Your task to perform on an android device: Show me productivity apps on the Play Store Image 0: 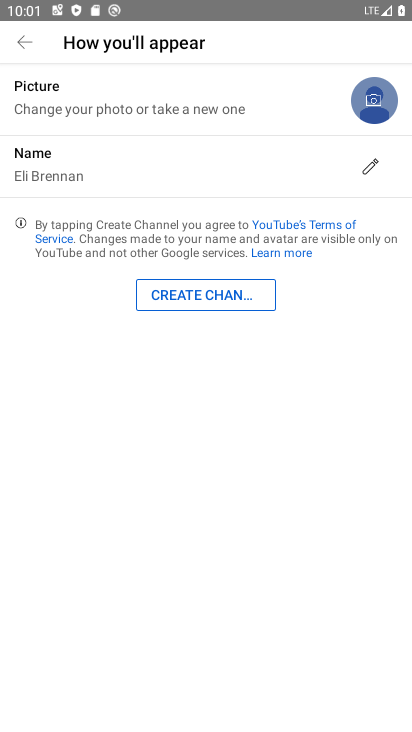
Step 0: press home button
Your task to perform on an android device: Show me productivity apps on the Play Store Image 1: 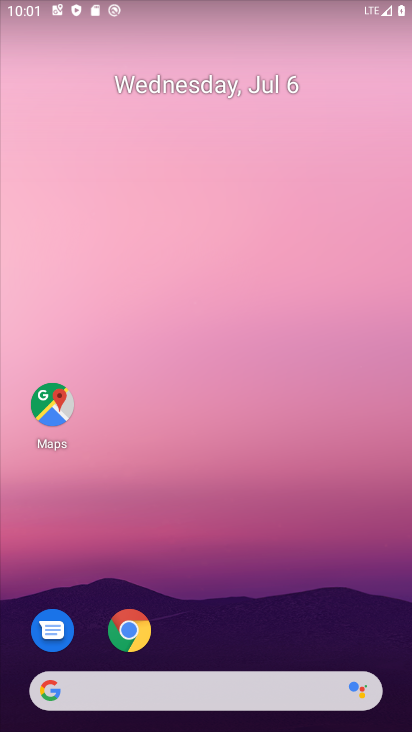
Step 1: drag from (372, 625) to (307, 146)
Your task to perform on an android device: Show me productivity apps on the Play Store Image 2: 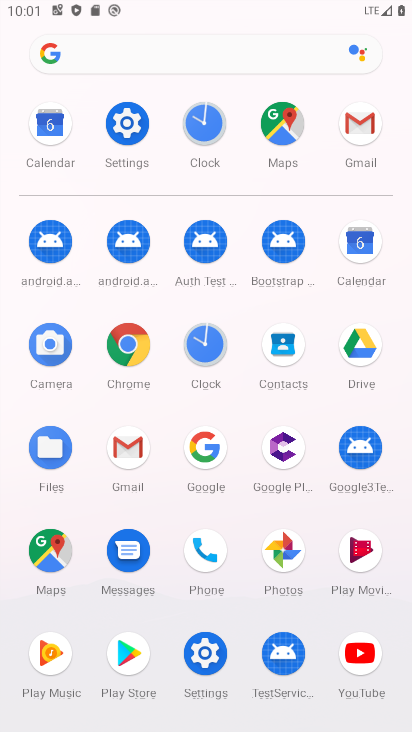
Step 2: click (128, 651)
Your task to perform on an android device: Show me productivity apps on the Play Store Image 3: 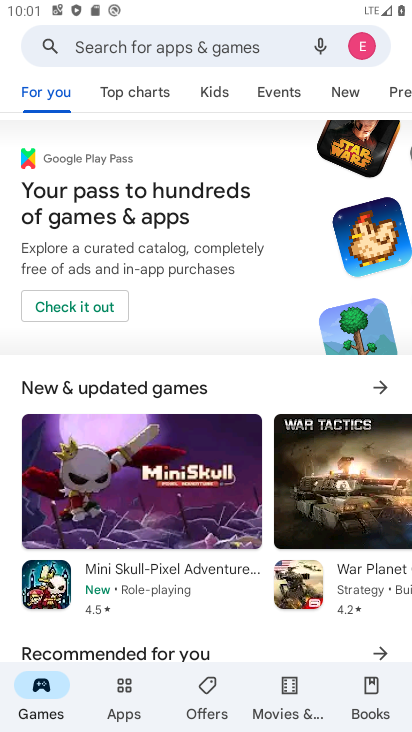
Step 3: click (125, 701)
Your task to perform on an android device: Show me productivity apps on the Play Store Image 4: 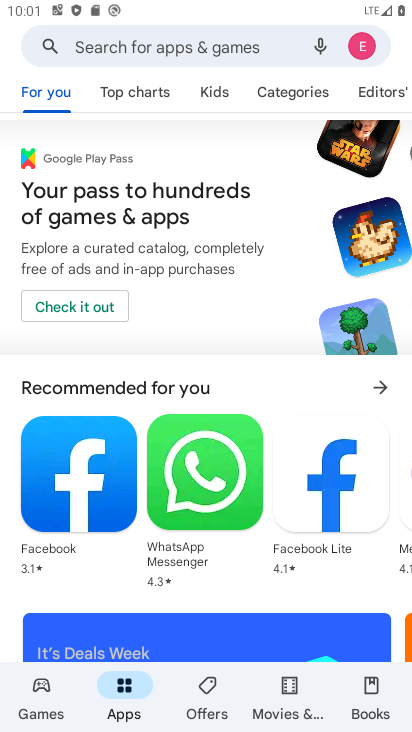
Step 4: click (296, 88)
Your task to perform on an android device: Show me productivity apps on the Play Store Image 5: 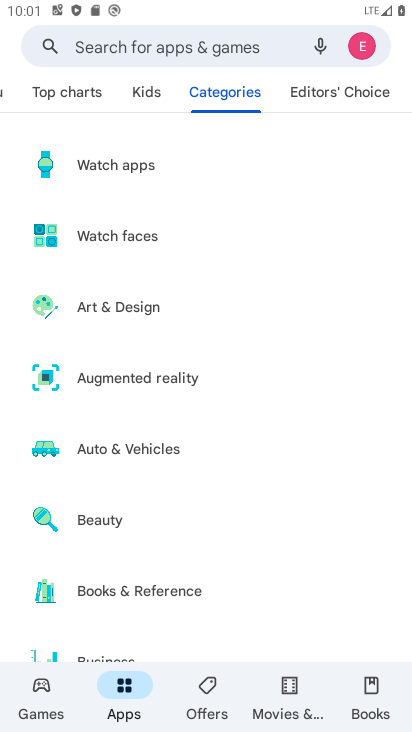
Step 5: drag from (224, 590) to (266, 167)
Your task to perform on an android device: Show me productivity apps on the Play Store Image 6: 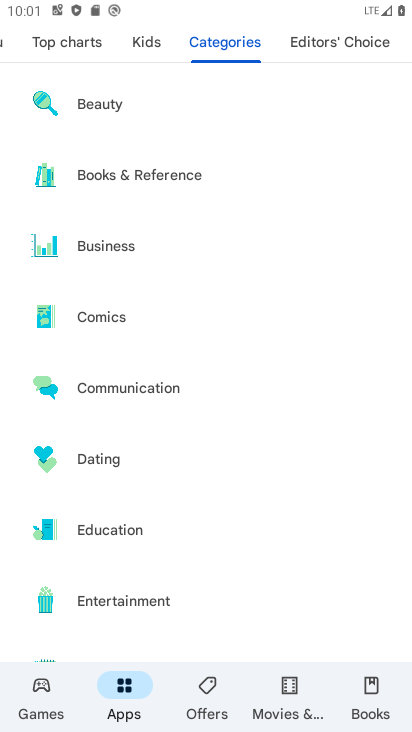
Step 6: drag from (243, 546) to (269, 274)
Your task to perform on an android device: Show me productivity apps on the Play Store Image 7: 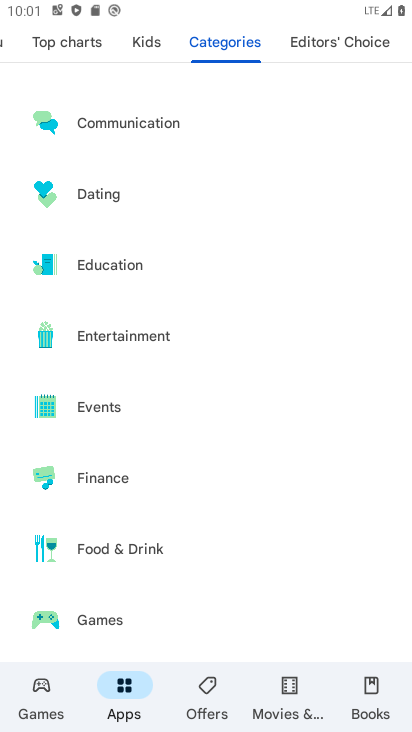
Step 7: drag from (247, 630) to (163, 310)
Your task to perform on an android device: Show me productivity apps on the Play Store Image 8: 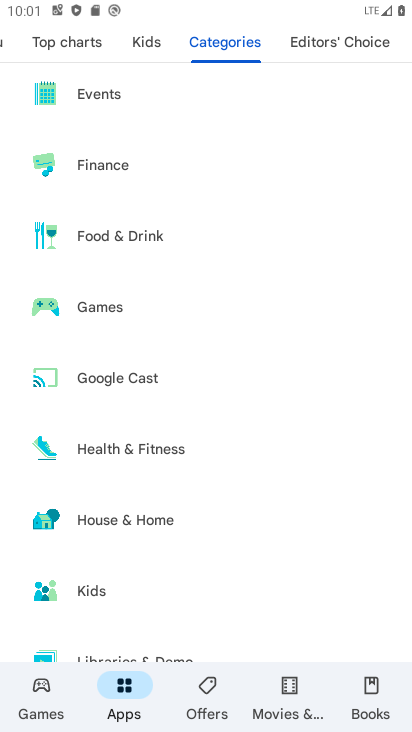
Step 8: drag from (243, 608) to (239, 240)
Your task to perform on an android device: Show me productivity apps on the Play Store Image 9: 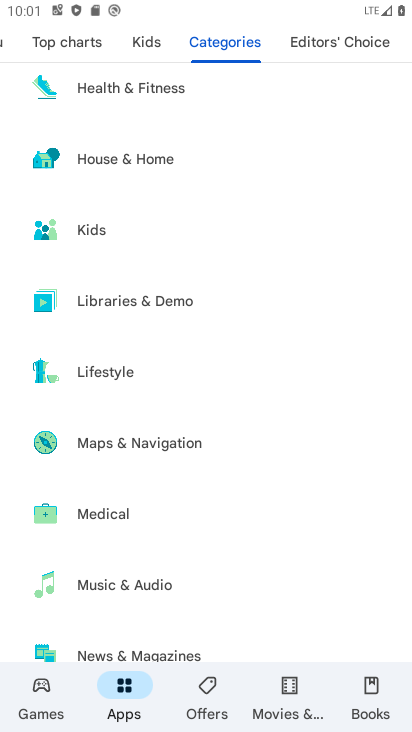
Step 9: drag from (267, 599) to (274, 175)
Your task to perform on an android device: Show me productivity apps on the Play Store Image 10: 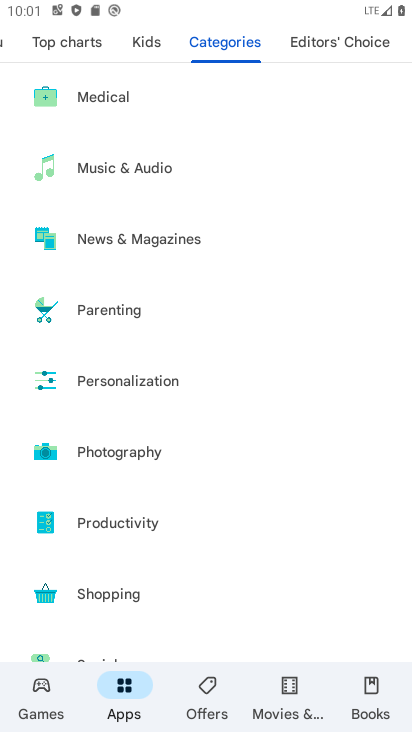
Step 10: click (90, 526)
Your task to perform on an android device: Show me productivity apps on the Play Store Image 11: 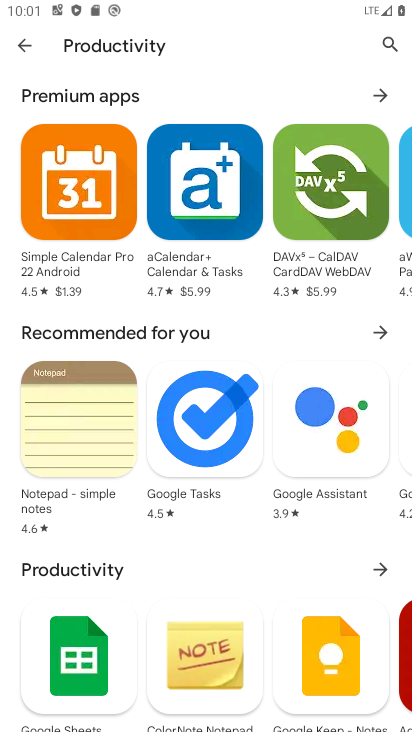
Step 11: task complete